Your task to perform on an android device: Check the news Image 0: 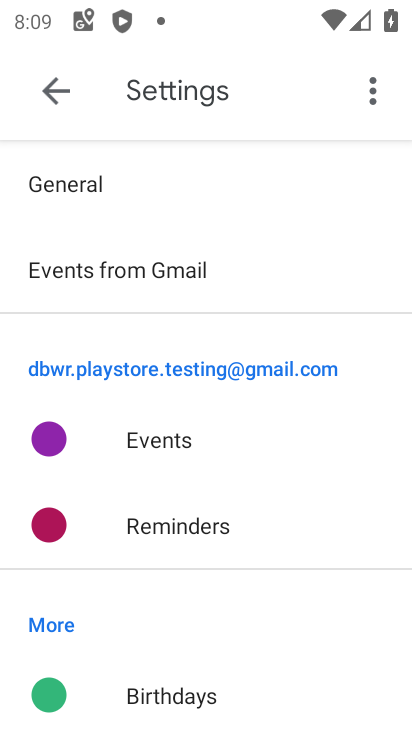
Step 0: press home button
Your task to perform on an android device: Check the news Image 1: 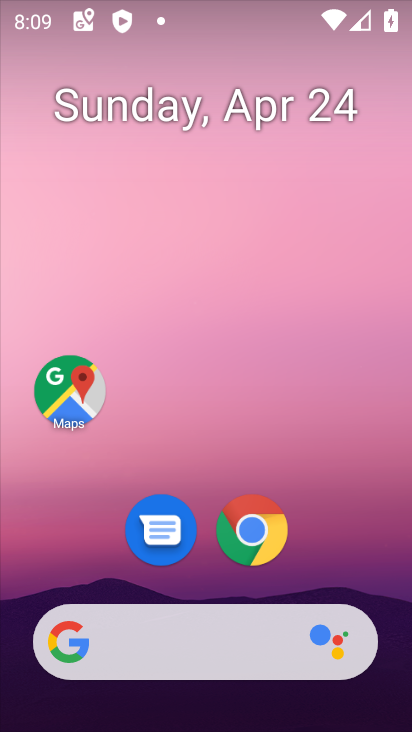
Step 1: click (207, 643)
Your task to perform on an android device: Check the news Image 2: 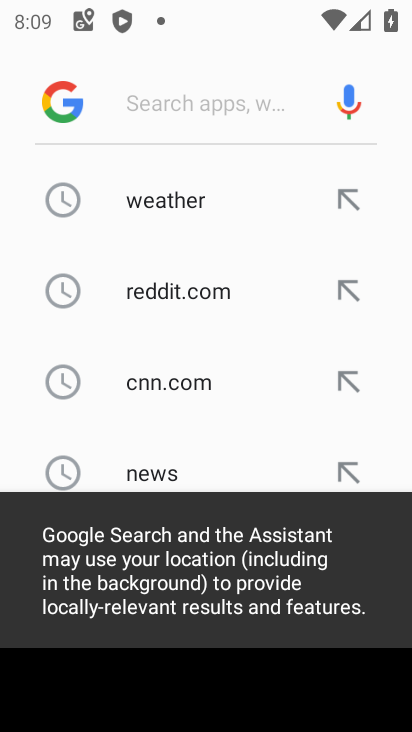
Step 2: click (71, 108)
Your task to perform on an android device: Check the news Image 3: 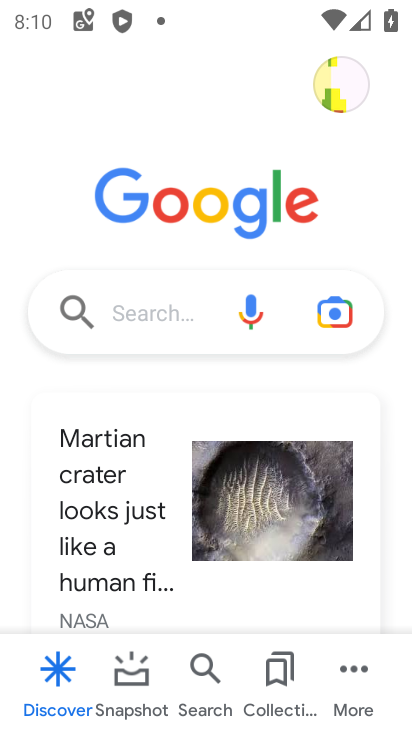
Step 3: task complete